Your task to perform on an android device: delete browsing data in the chrome app Image 0: 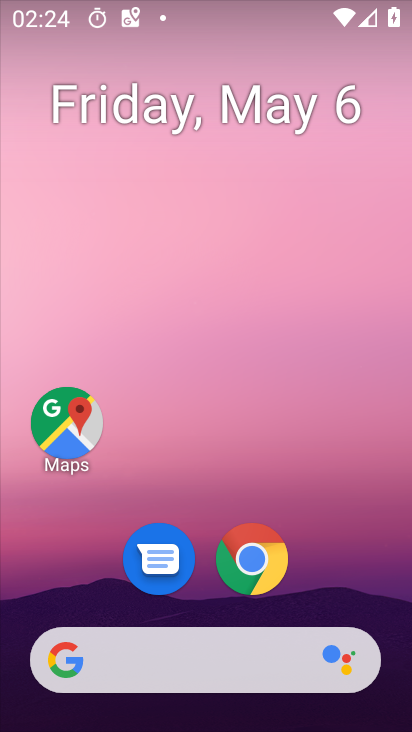
Step 0: drag from (348, 625) to (322, 31)
Your task to perform on an android device: delete browsing data in the chrome app Image 1: 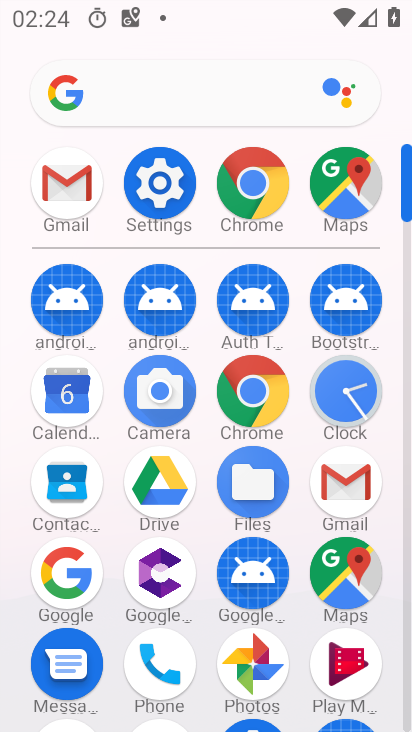
Step 1: click (255, 377)
Your task to perform on an android device: delete browsing data in the chrome app Image 2: 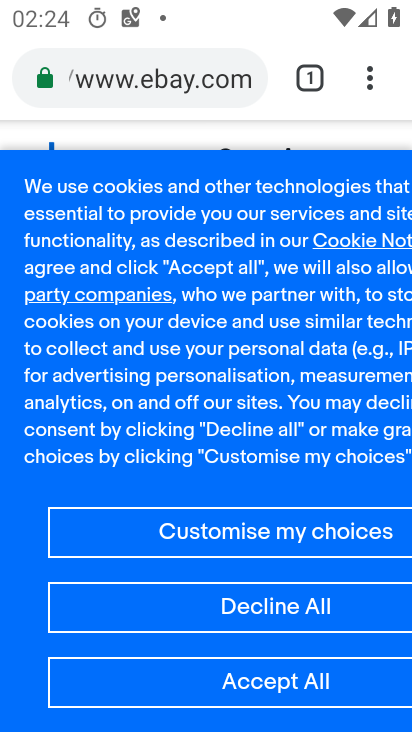
Step 2: drag from (365, 76) to (144, 443)
Your task to perform on an android device: delete browsing data in the chrome app Image 3: 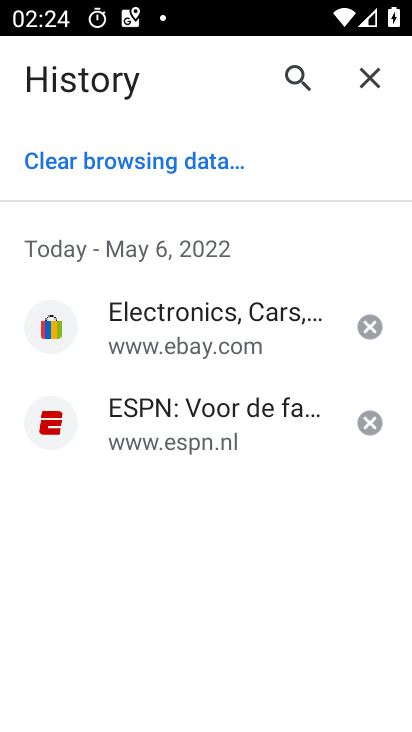
Step 3: click (178, 170)
Your task to perform on an android device: delete browsing data in the chrome app Image 4: 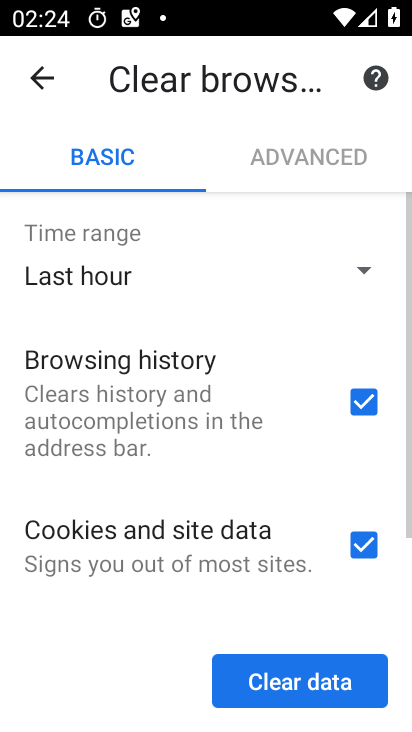
Step 4: click (339, 666)
Your task to perform on an android device: delete browsing data in the chrome app Image 5: 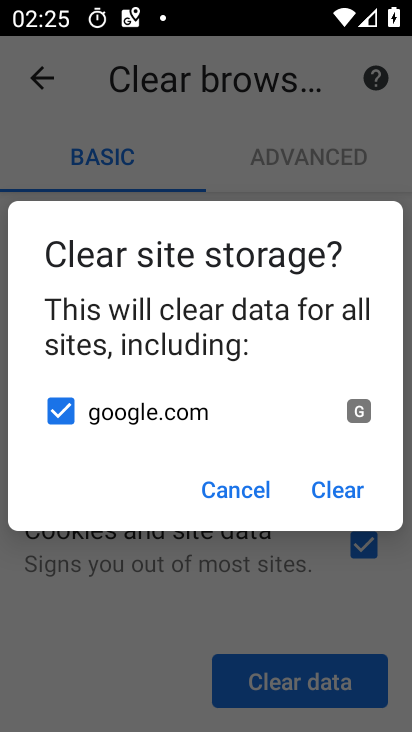
Step 5: click (324, 490)
Your task to perform on an android device: delete browsing data in the chrome app Image 6: 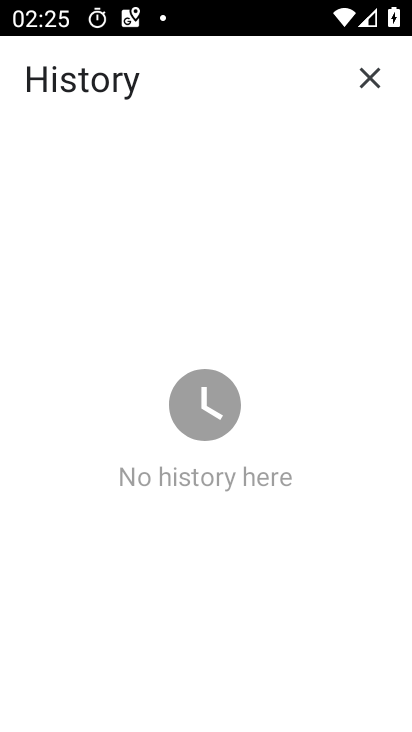
Step 6: task complete